Your task to perform on an android device: Show me productivity apps on the Play Store Image 0: 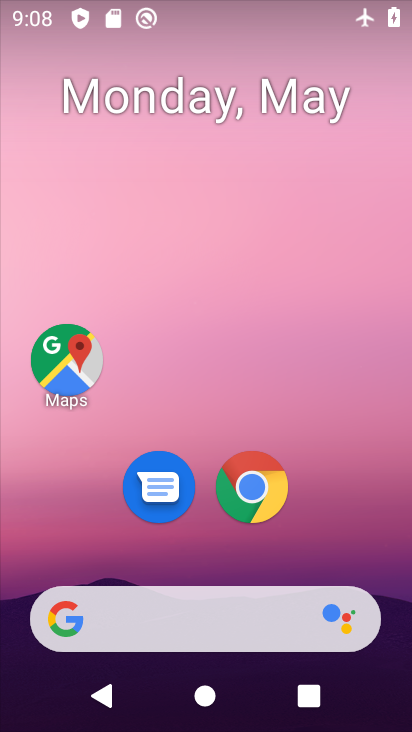
Step 0: drag from (368, 493) to (372, 252)
Your task to perform on an android device: Show me productivity apps on the Play Store Image 1: 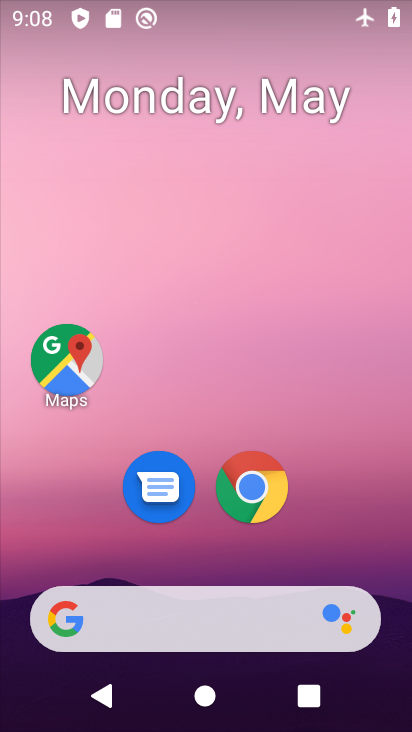
Step 1: drag from (311, 536) to (310, 261)
Your task to perform on an android device: Show me productivity apps on the Play Store Image 2: 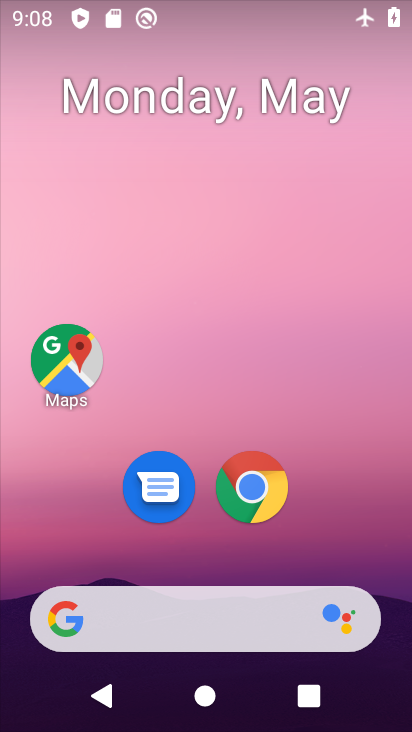
Step 2: drag from (306, 559) to (343, 162)
Your task to perform on an android device: Show me productivity apps on the Play Store Image 3: 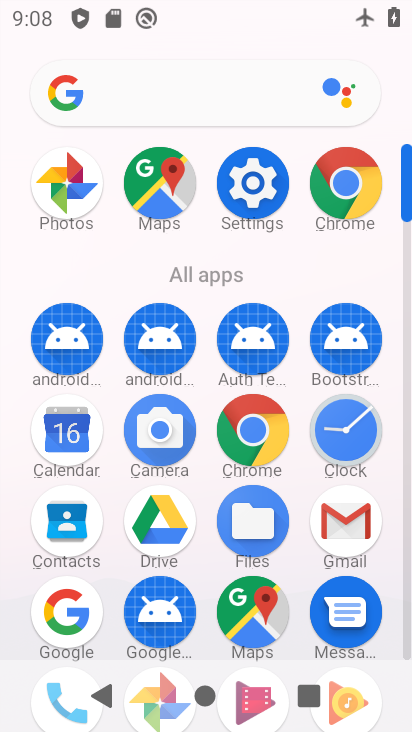
Step 3: drag from (197, 613) to (234, 276)
Your task to perform on an android device: Show me productivity apps on the Play Store Image 4: 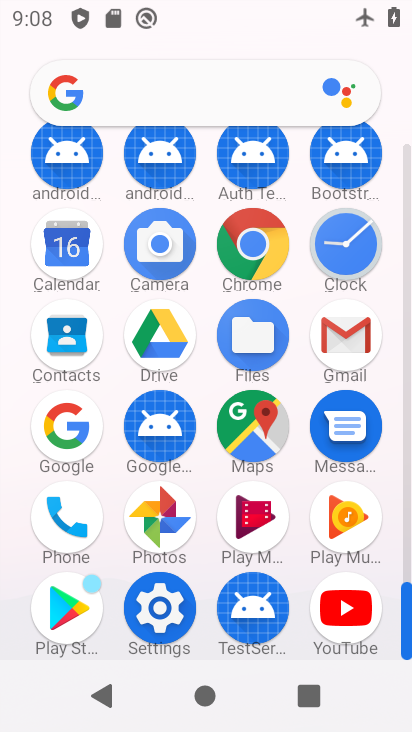
Step 4: click (70, 599)
Your task to perform on an android device: Show me productivity apps on the Play Store Image 5: 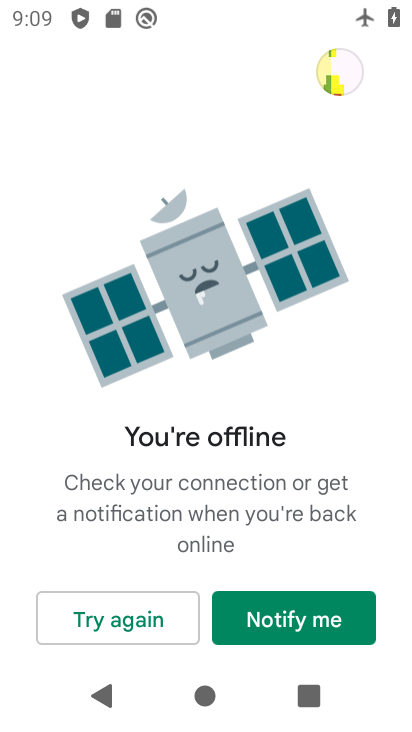
Step 5: task complete